Your task to perform on an android device: What's on my calendar today? Image 0: 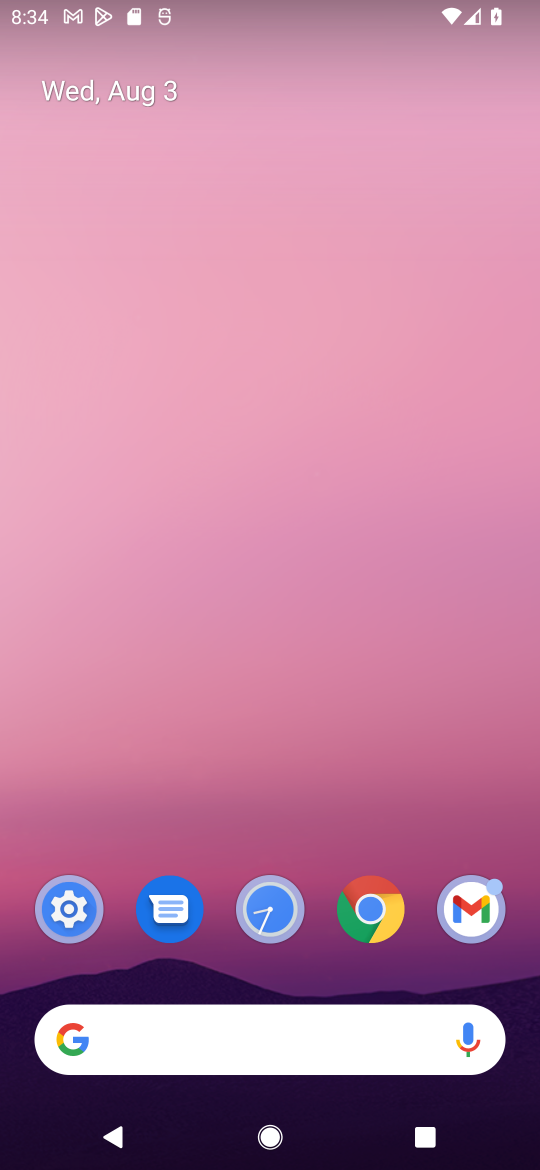
Step 0: drag from (316, 829) to (338, 257)
Your task to perform on an android device: What's on my calendar today? Image 1: 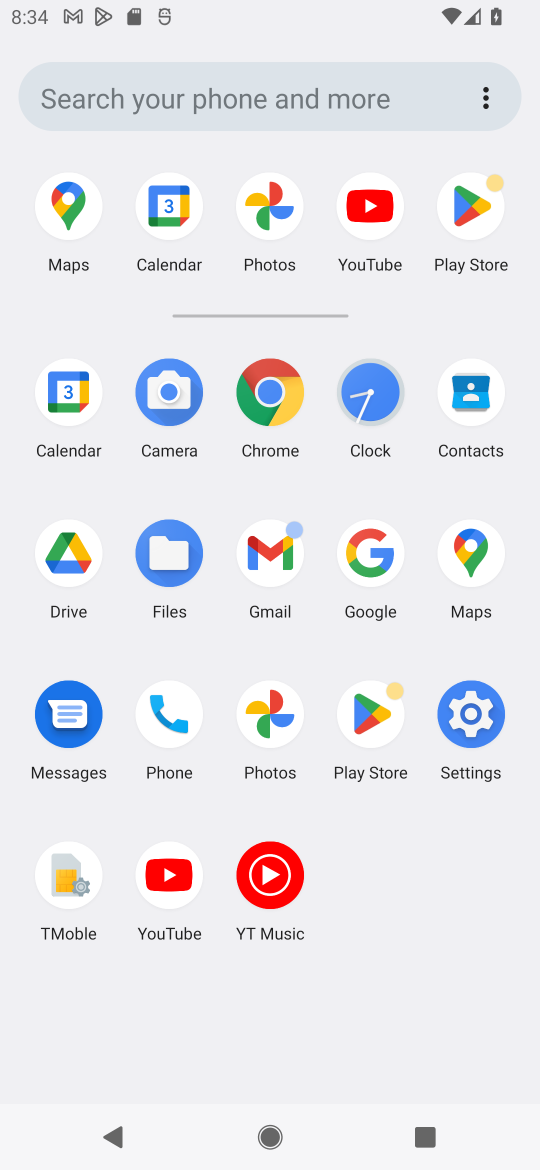
Step 1: click (74, 406)
Your task to perform on an android device: What's on my calendar today? Image 2: 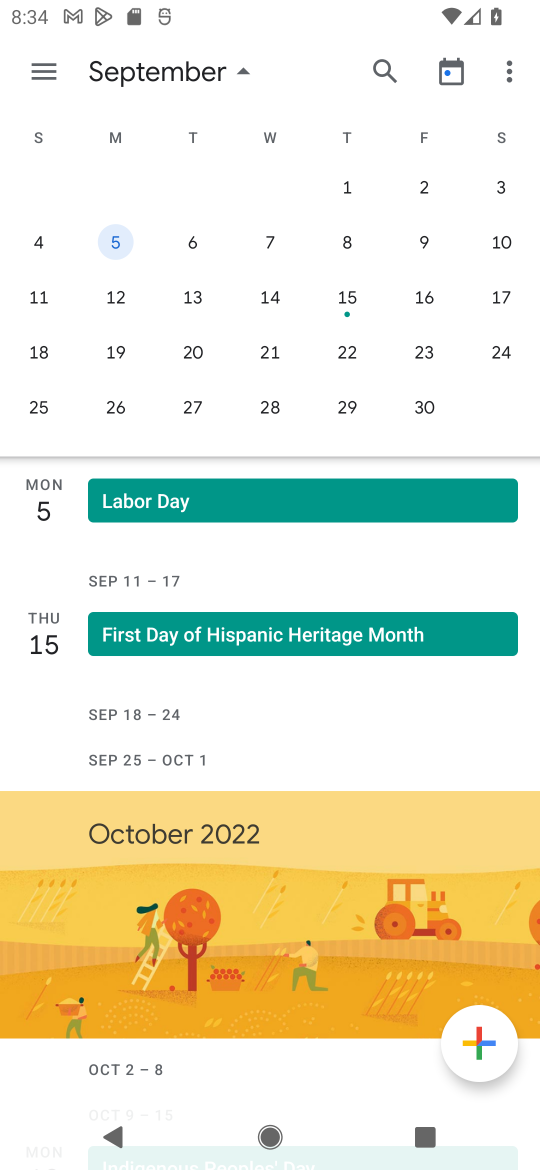
Step 2: drag from (265, 639) to (273, 454)
Your task to perform on an android device: What's on my calendar today? Image 3: 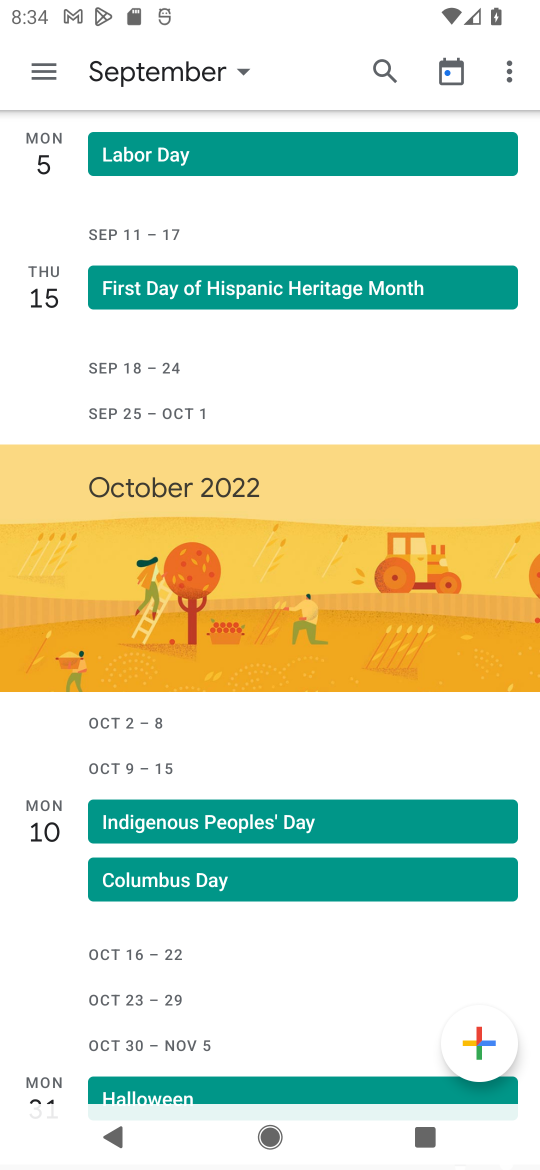
Step 3: drag from (259, 654) to (266, 417)
Your task to perform on an android device: What's on my calendar today? Image 4: 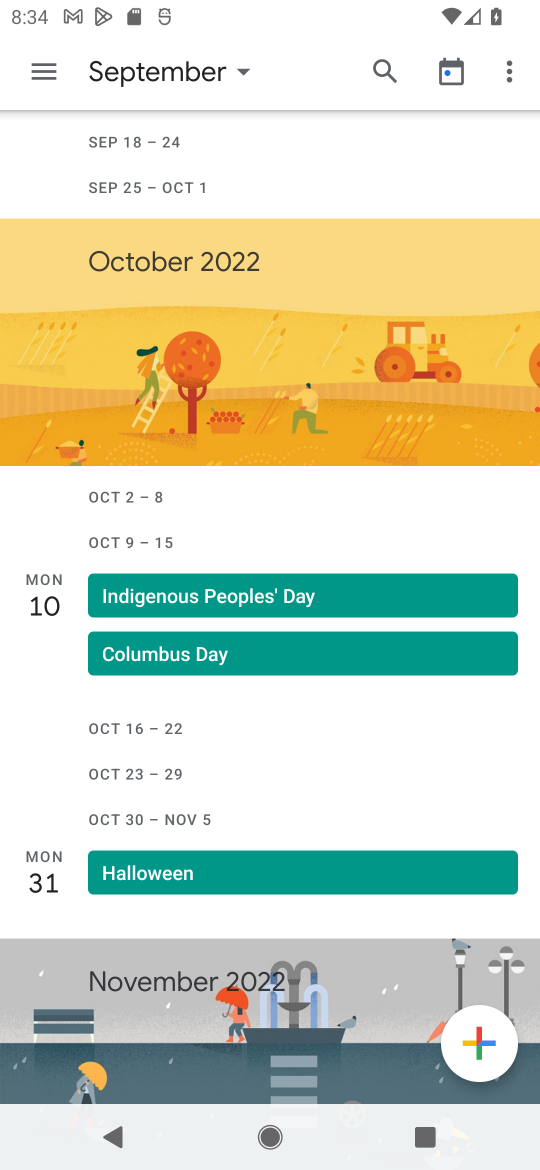
Step 4: drag from (258, 188) to (247, 434)
Your task to perform on an android device: What's on my calendar today? Image 5: 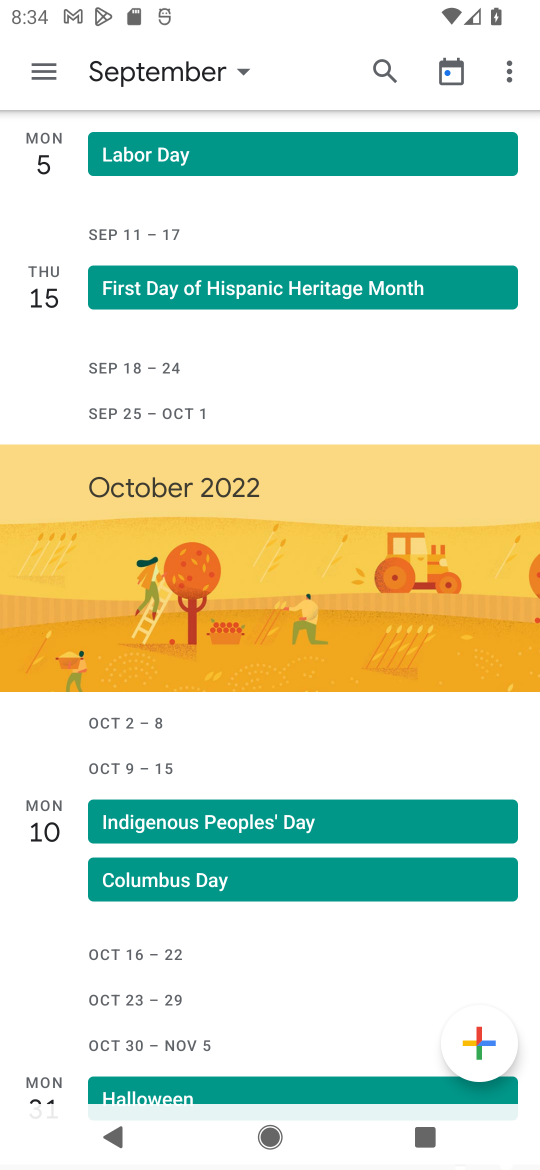
Step 5: drag from (225, 189) to (226, 412)
Your task to perform on an android device: What's on my calendar today? Image 6: 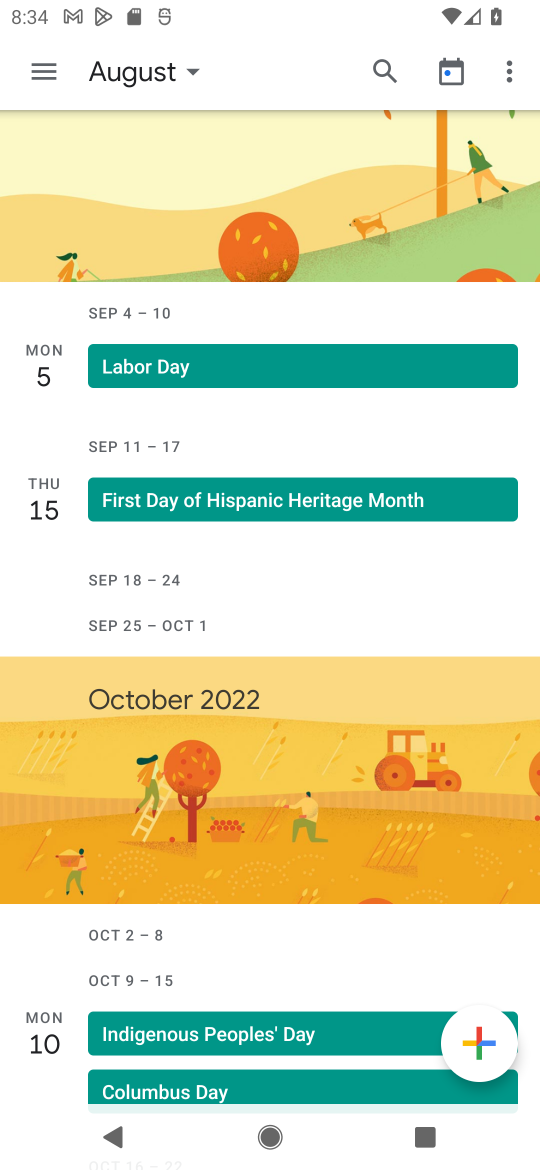
Step 6: click (196, 68)
Your task to perform on an android device: What's on my calendar today? Image 7: 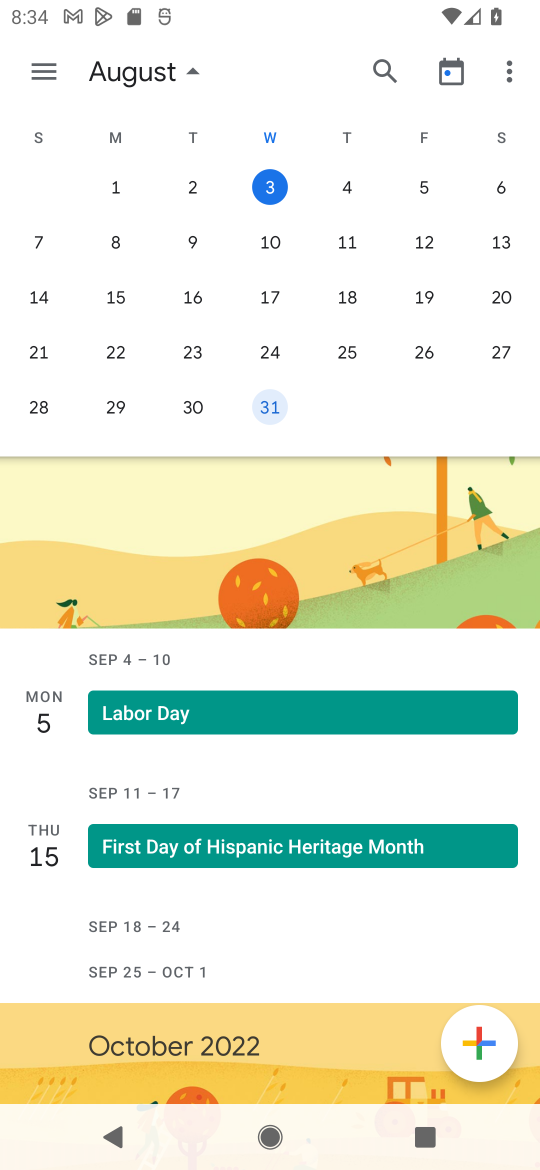
Step 7: click (269, 188)
Your task to perform on an android device: What's on my calendar today? Image 8: 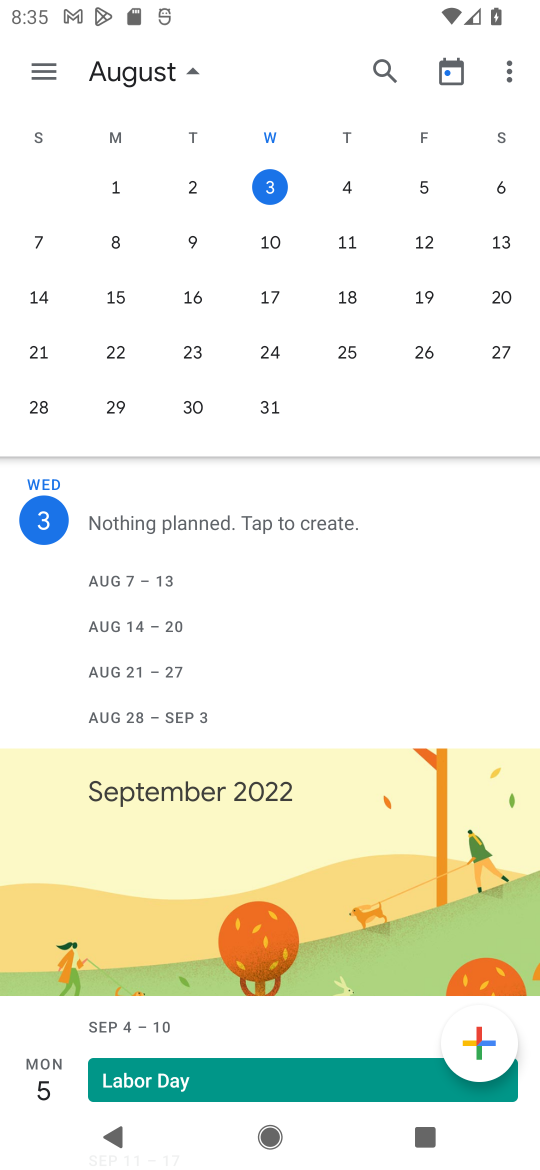
Step 8: task complete